Your task to perform on an android device: Show me productivity apps on the Play Store Image 0: 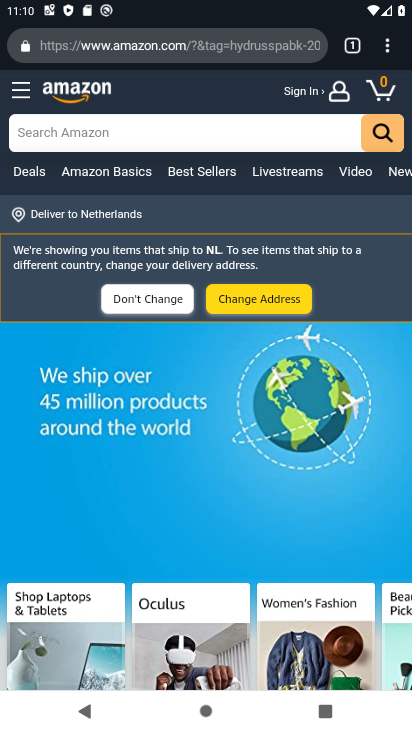
Step 0: press home button
Your task to perform on an android device: Show me productivity apps on the Play Store Image 1: 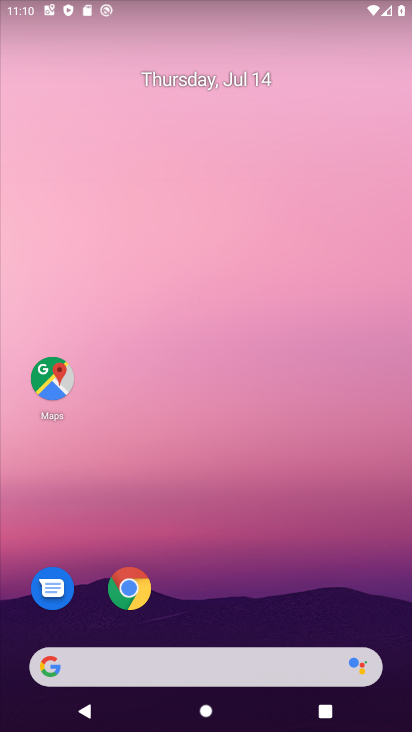
Step 1: drag from (399, 672) to (323, 51)
Your task to perform on an android device: Show me productivity apps on the Play Store Image 2: 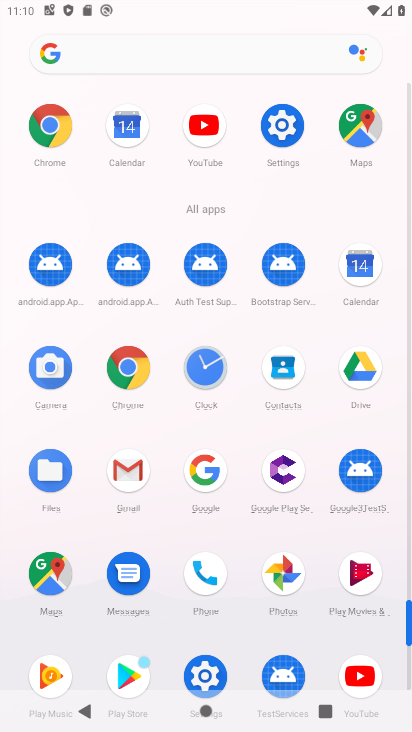
Step 2: click (131, 674)
Your task to perform on an android device: Show me productivity apps on the Play Store Image 3: 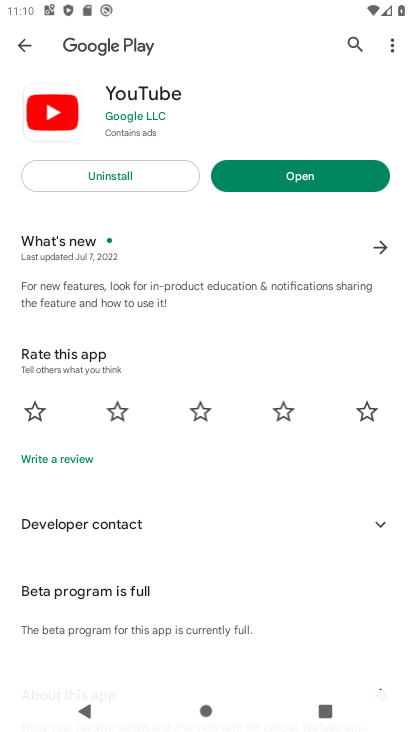
Step 3: press back button
Your task to perform on an android device: Show me productivity apps on the Play Store Image 4: 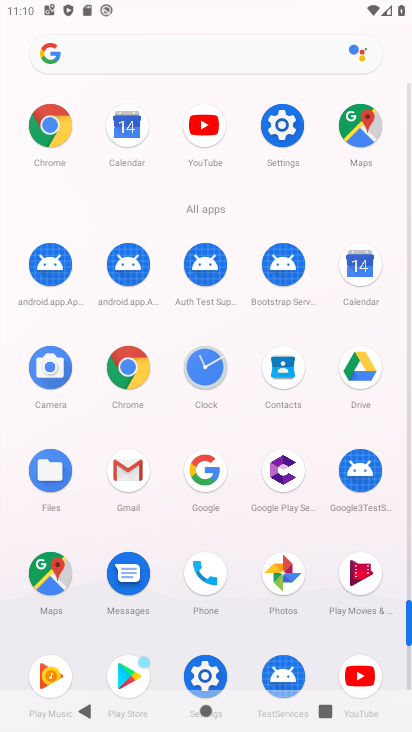
Step 4: click (128, 669)
Your task to perform on an android device: Show me productivity apps on the Play Store Image 5: 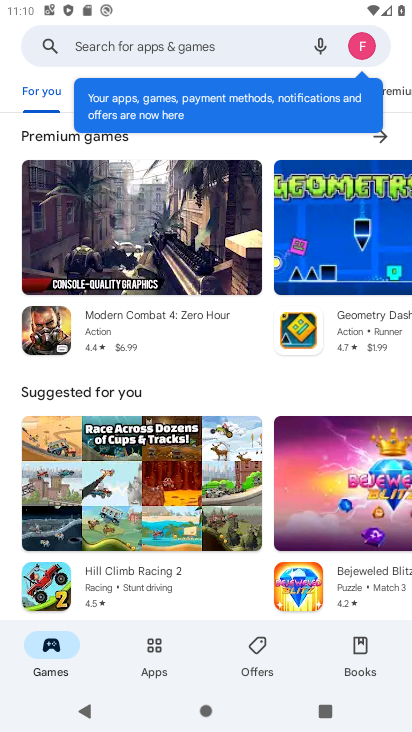
Step 5: click (154, 653)
Your task to perform on an android device: Show me productivity apps on the Play Store Image 6: 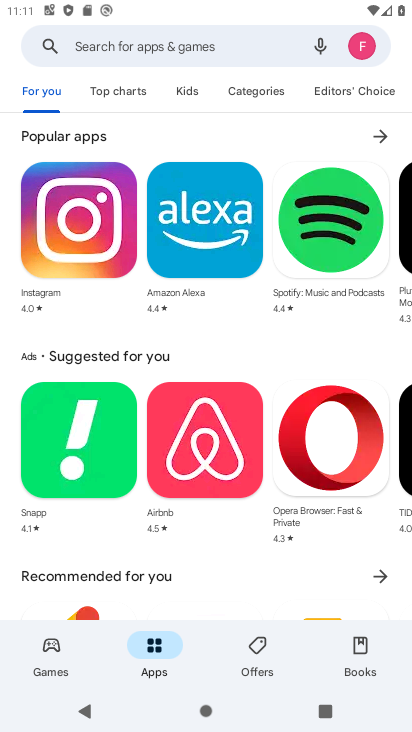
Step 6: click (260, 96)
Your task to perform on an android device: Show me productivity apps on the Play Store Image 7: 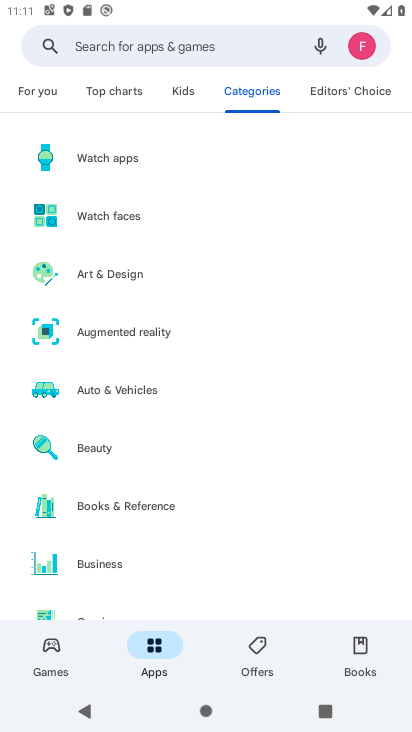
Step 7: drag from (215, 572) to (221, 266)
Your task to perform on an android device: Show me productivity apps on the Play Store Image 8: 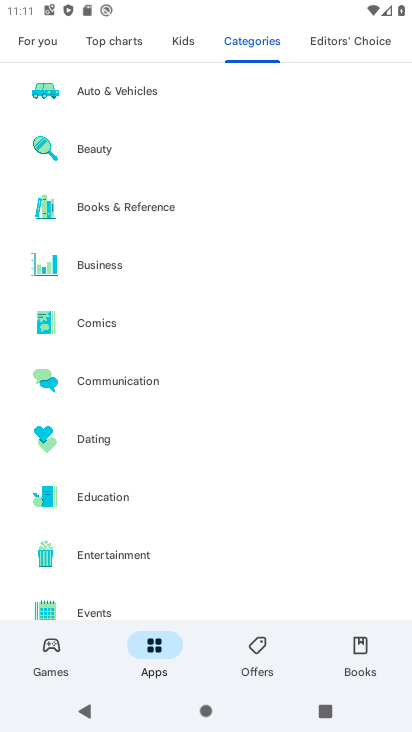
Step 8: drag from (198, 566) to (180, 148)
Your task to perform on an android device: Show me productivity apps on the Play Store Image 9: 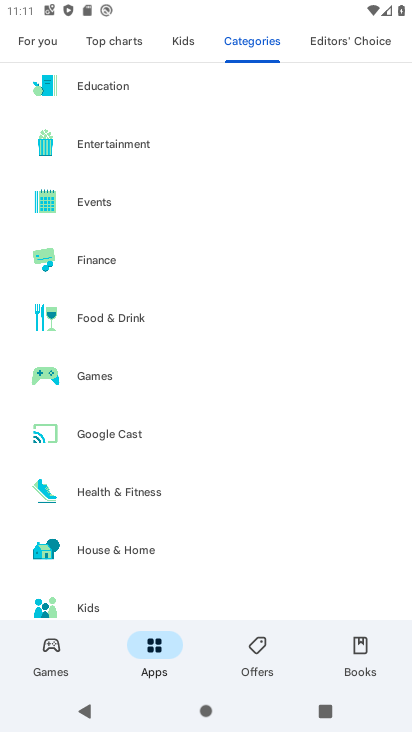
Step 9: drag from (195, 565) to (252, 220)
Your task to perform on an android device: Show me productivity apps on the Play Store Image 10: 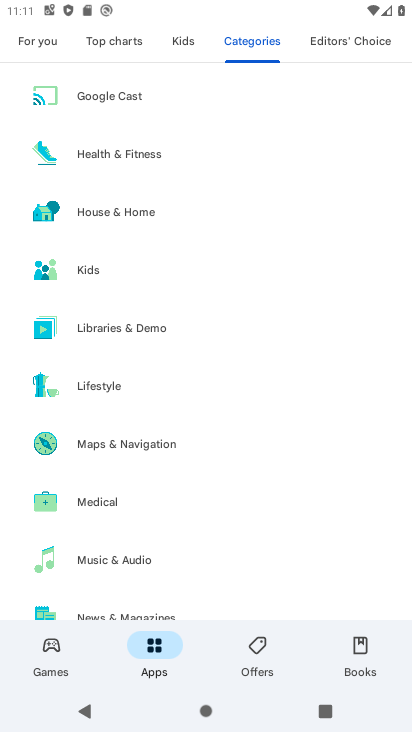
Step 10: drag from (215, 569) to (185, 235)
Your task to perform on an android device: Show me productivity apps on the Play Store Image 11: 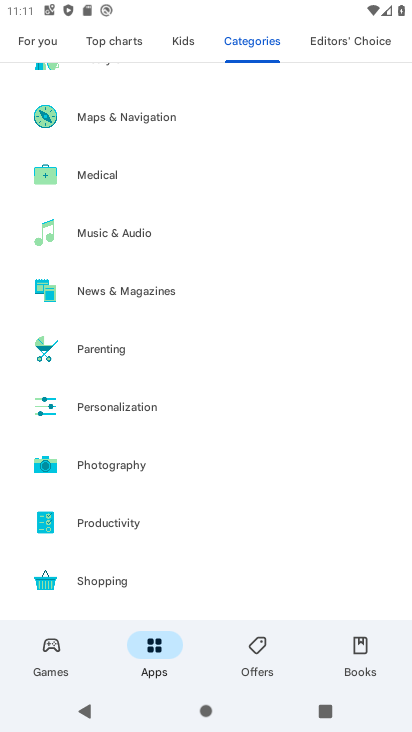
Step 11: click (80, 526)
Your task to perform on an android device: Show me productivity apps on the Play Store Image 12: 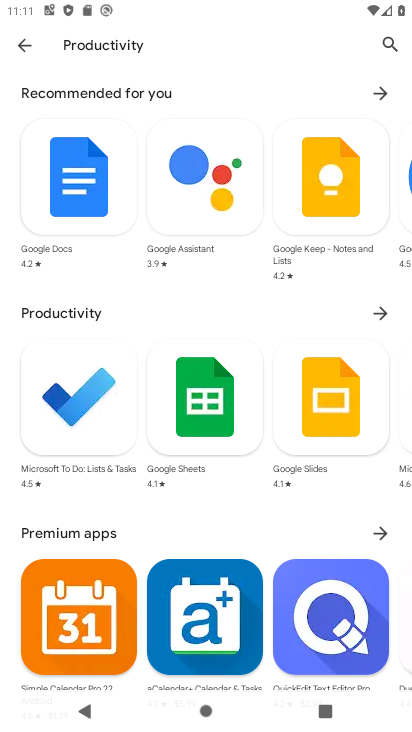
Step 12: click (380, 312)
Your task to perform on an android device: Show me productivity apps on the Play Store Image 13: 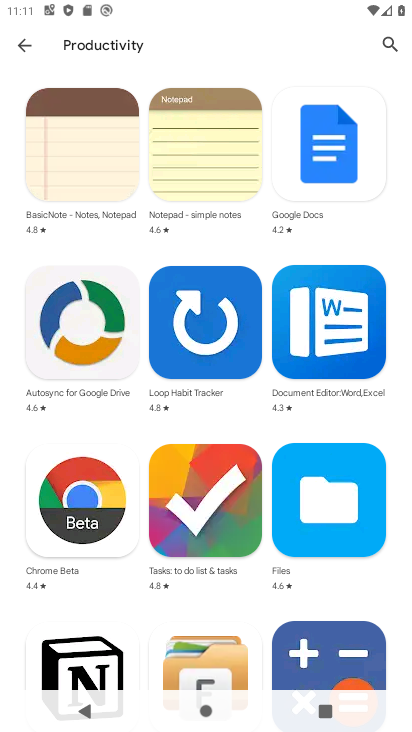
Step 13: task complete